Your task to perform on an android device: What's the weather going to be this weekend? Image 0: 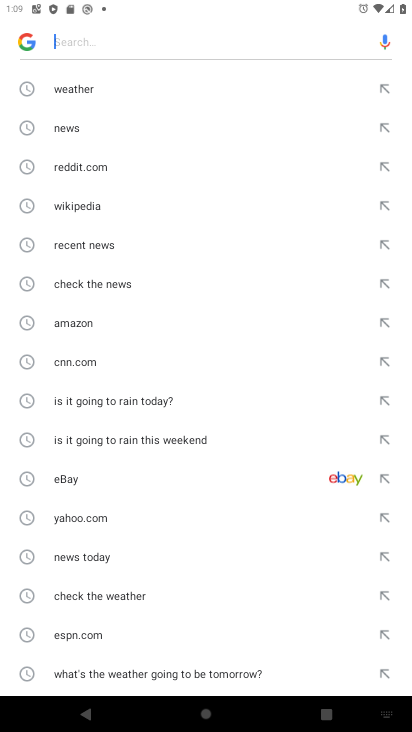
Step 0: press home button
Your task to perform on an android device: What's the weather going to be this weekend? Image 1: 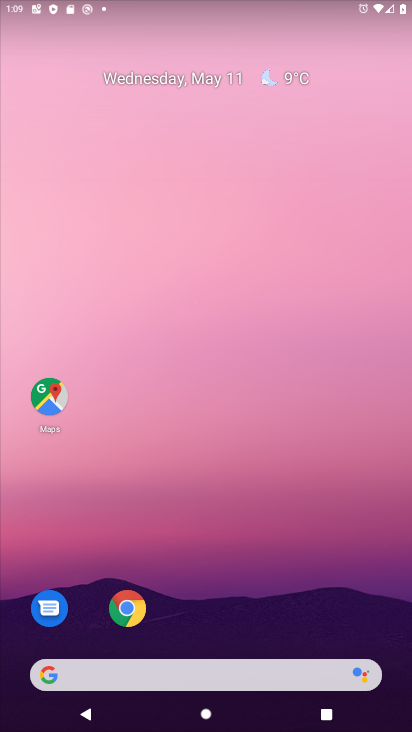
Step 1: drag from (243, 622) to (261, 224)
Your task to perform on an android device: What's the weather going to be this weekend? Image 2: 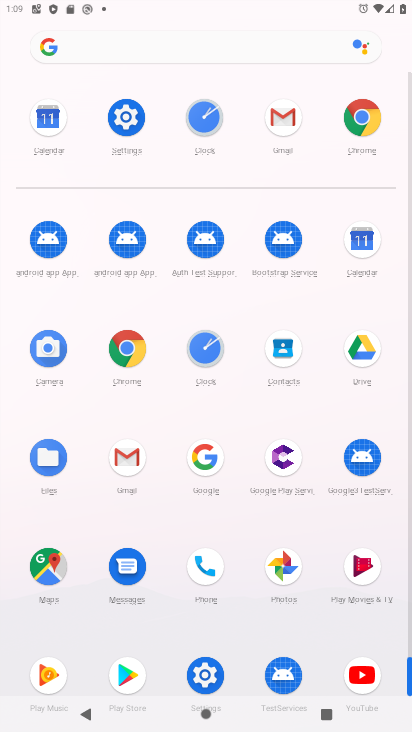
Step 2: click (212, 467)
Your task to perform on an android device: What's the weather going to be this weekend? Image 3: 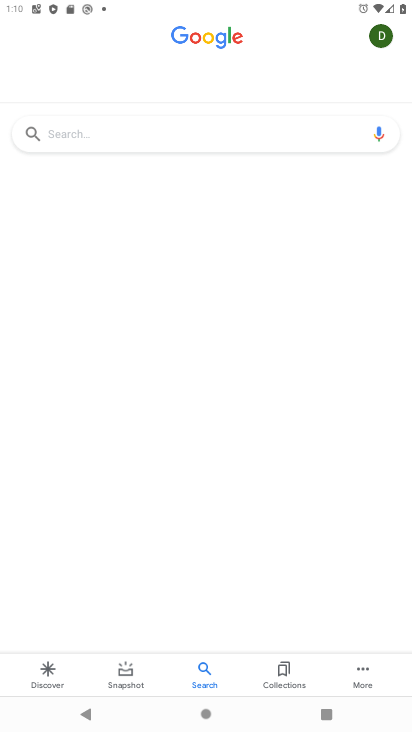
Step 3: click (191, 137)
Your task to perform on an android device: What's the weather going to be this weekend? Image 4: 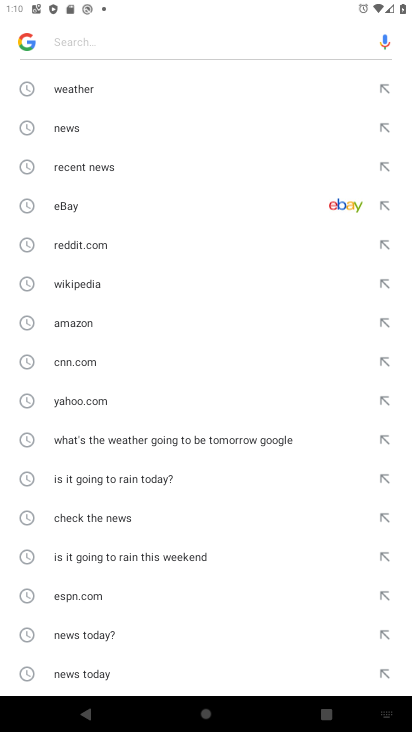
Step 4: click (233, 82)
Your task to perform on an android device: What's the weather going to be this weekend? Image 5: 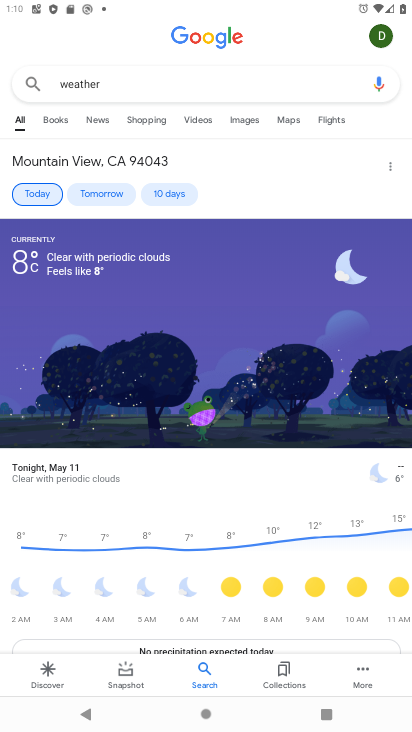
Step 5: task complete